Your task to perform on an android device: turn notification dots off Image 0: 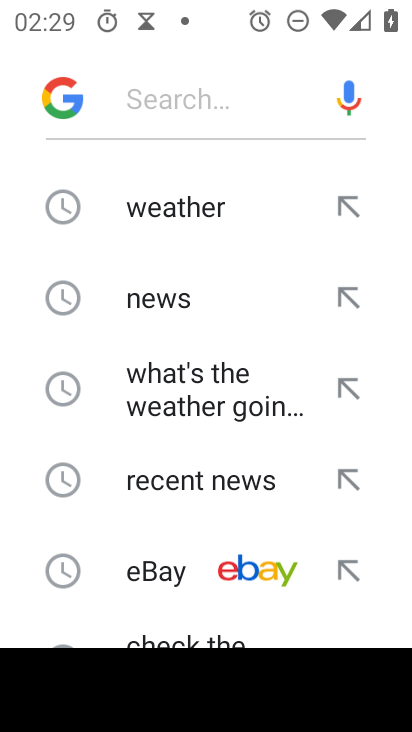
Step 0: press home button
Your task to perform on an android device: turn notification dots off Image 1: 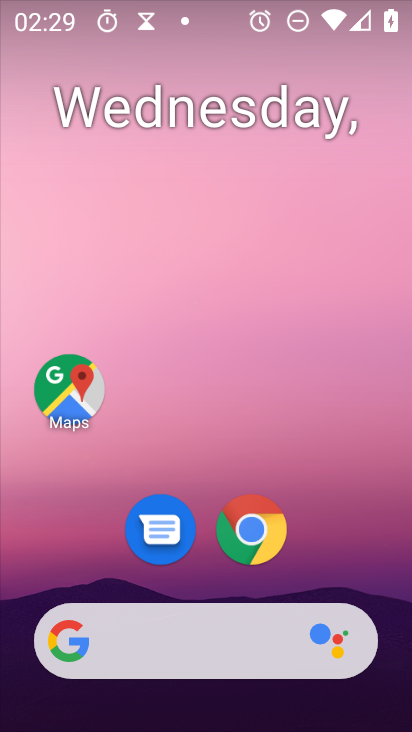
Step 1: drag from (265, 670) to (218, 8)
Your task to perform on an android device: turn notification dots off Image 2: 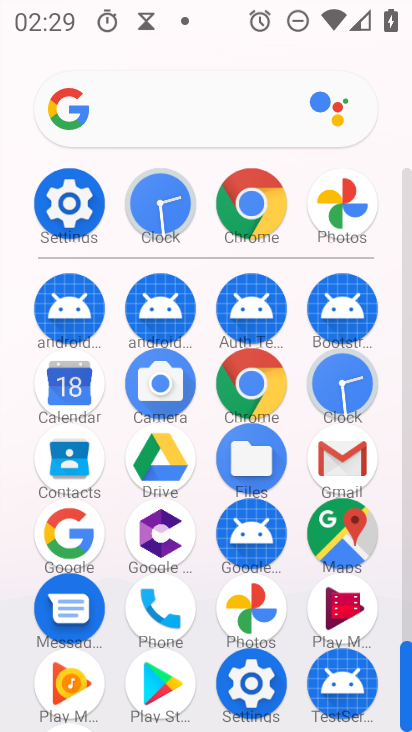
Step 2: click (83, 199)
Your task to perform on an android device: turn notification dots off Image 3: 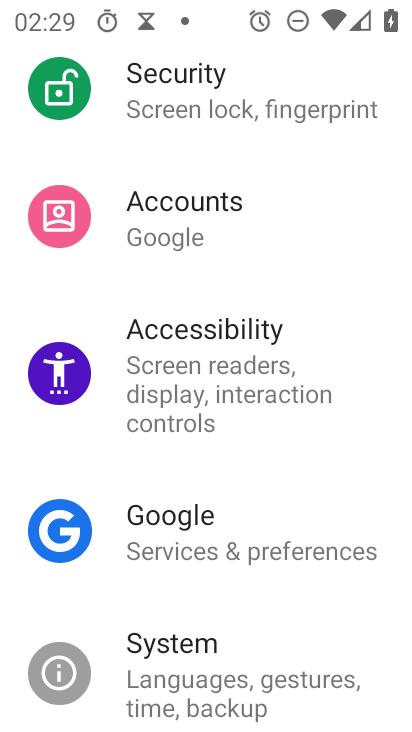
Step 3: drag from (238, 214) to (397, 729)
Your task to perform on an android device: turn notification dots off Image 4: 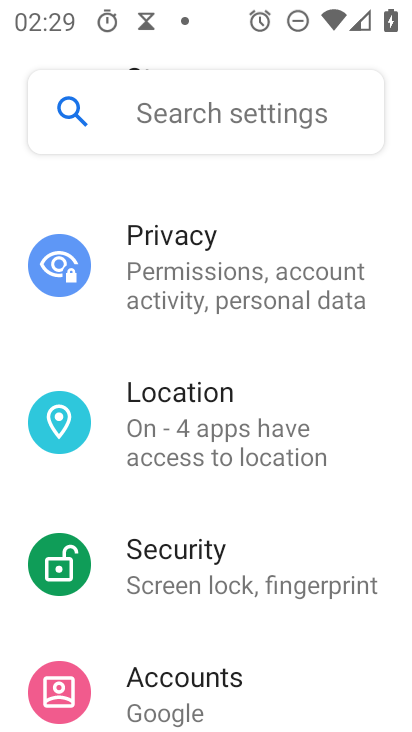
Step 4: drag from (196, 271) to (284, 725)
Your task to perform on an android device: turn notification dots off Image 5: 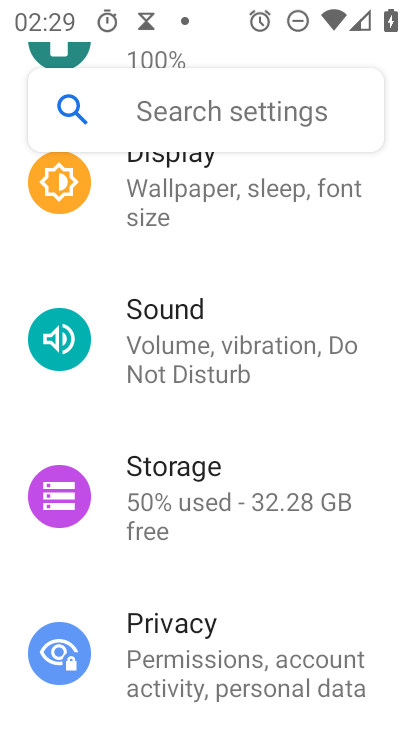
Step 5: drag from (199, 328) to (335, 731)
Your task to perform on an android device: turn notification dots off Image 6: 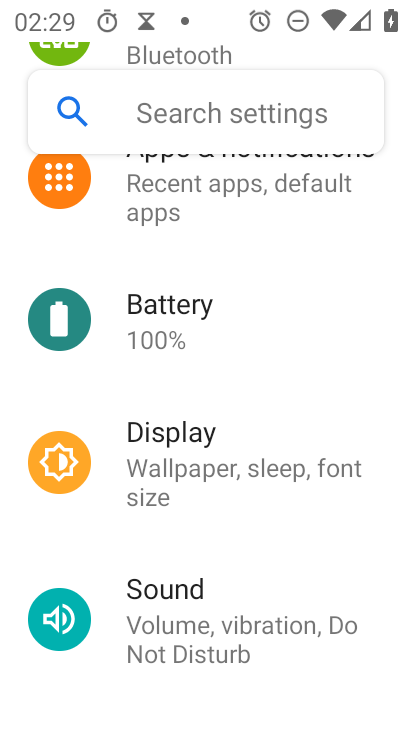
Step 6: drag from (258, 206) to (269, 618)
Your task to perform on an android device: turn notification dots off Image 7: 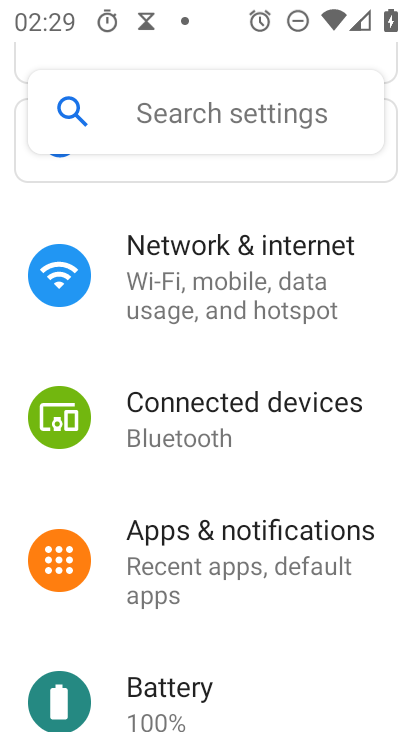
Step 7: click (225, 550)
Your task to perform on an android device: turn notification dots off Image 8: 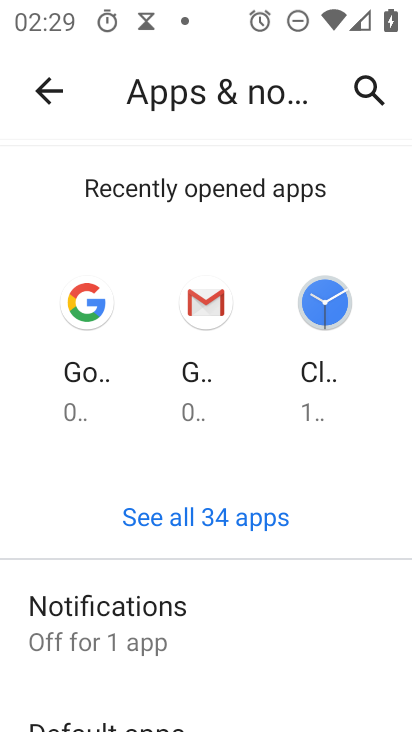
Step 8: drag from (190, 669) to (171, 51)
Your task to perform on an android device: turn notification dots off Image 9: 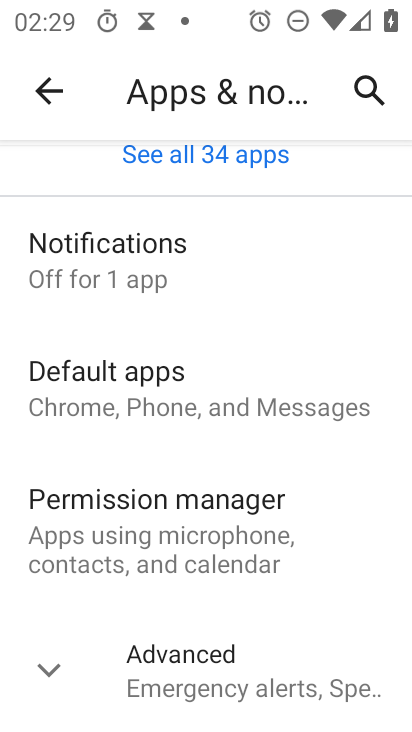
Step 9: click (202, 279)
Your task to perform on an android device: turn notification dots off Image 10: 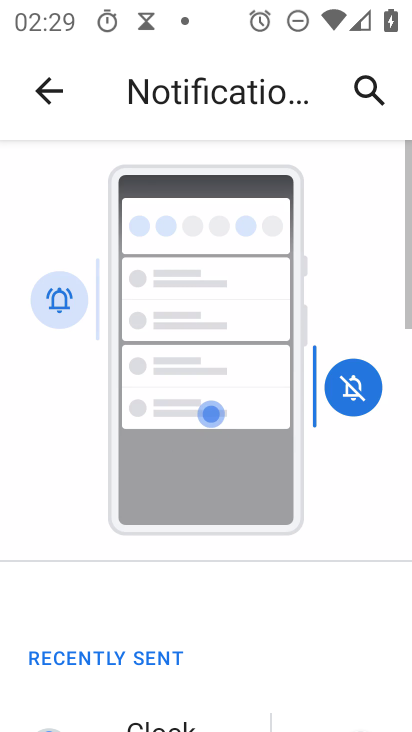
Step 10: drag from (281, 653) to (270, 26)
Your task to perform on an android device: turn notification dots off Image 11: 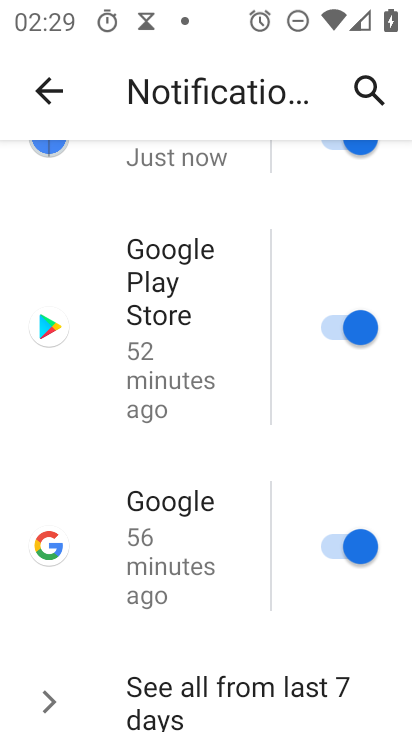
Step 11: drag from (254, 674) to (239, 203)
Your task to perform on an android device: turn notification dots off Image 12: 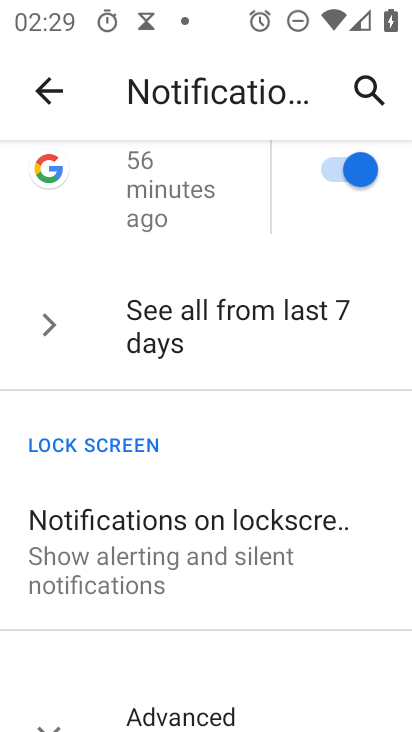
Step 12: drag from (239, 692) to (250, 349)
Your task to perform on an android device: turn notification dots off Image 13: 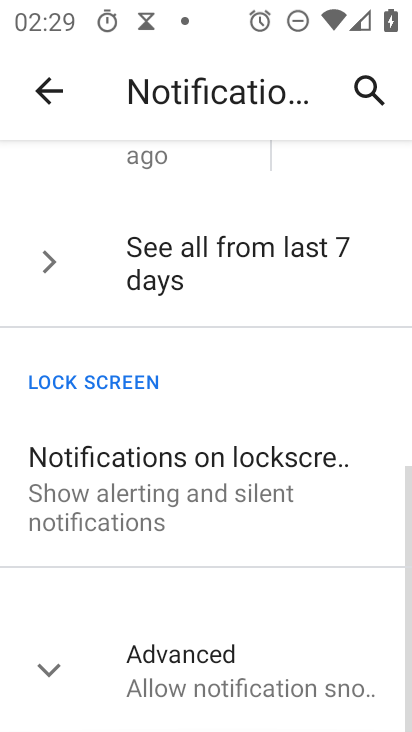
Step 13: click (267, 678)
Your task to perform on an android device: turn notification dots off Image 14: 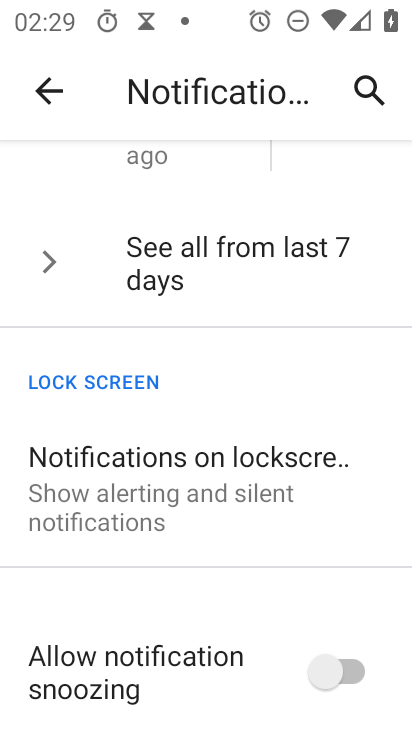
Step 14: task complete